Your task to perform on an android device: What's the weather going to be tomorrow? Image 0: 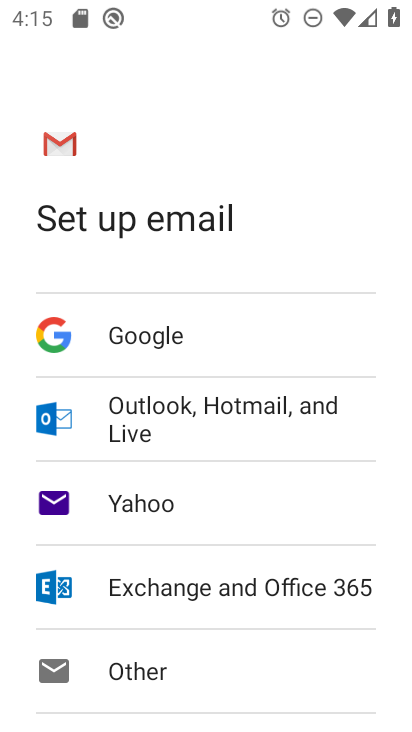
Step 0: press home button
Your task to perform on an android device: What's the weather going to be tomorrow? Image 1: 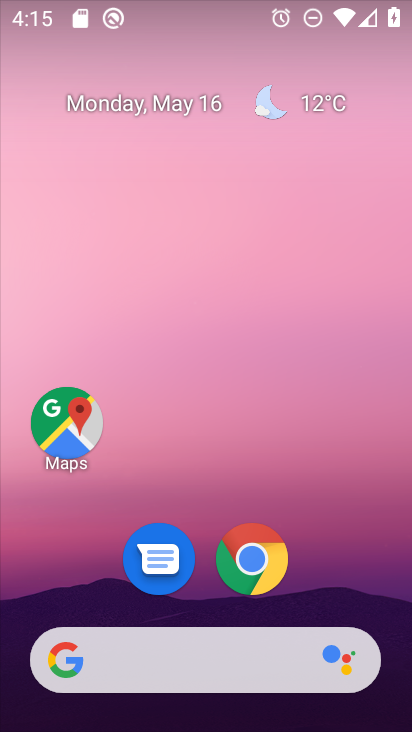
Step 1: click (355, 569)
Your task to perform on an android device: What's the weather going to be tomorrow? Image 2: 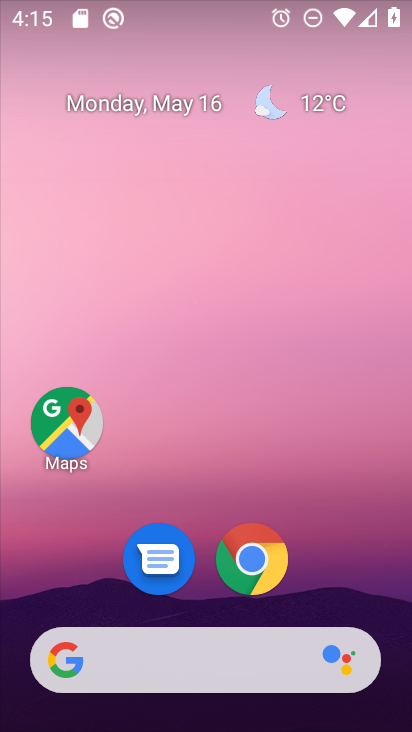
Step 2: click (154, 677)
Your task to perform on an android device: What's the weather going to be tomorrow? Image 3: 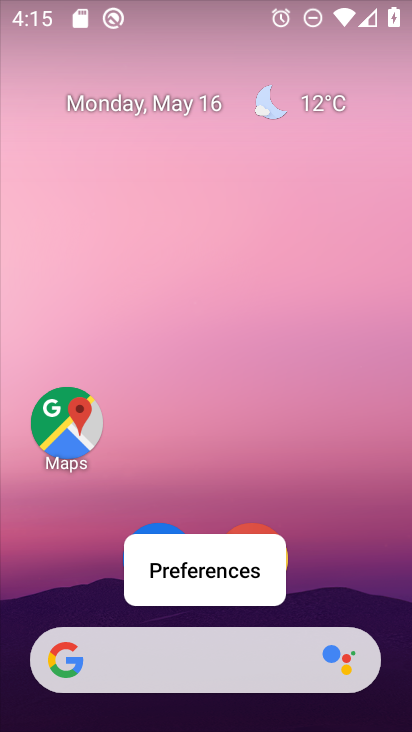
Step 3: click (154, 677)
Your task to perform on an android device: What's the weather going to be tomorrow? Image 4: 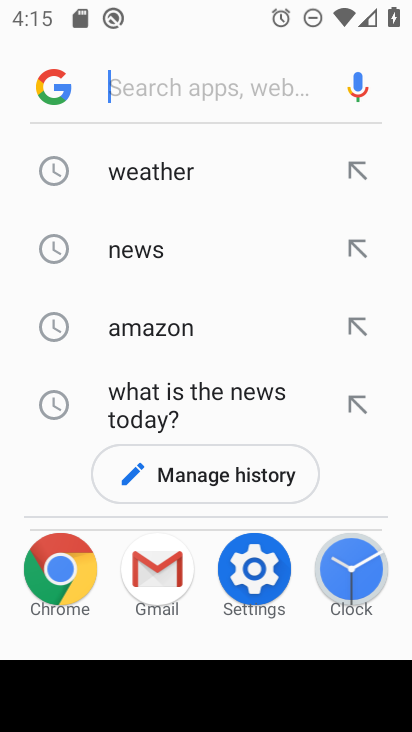
Step 4: click (187, 165)
Your task to perform on an android device: What's the weather going to be tomorrow? Image 5: 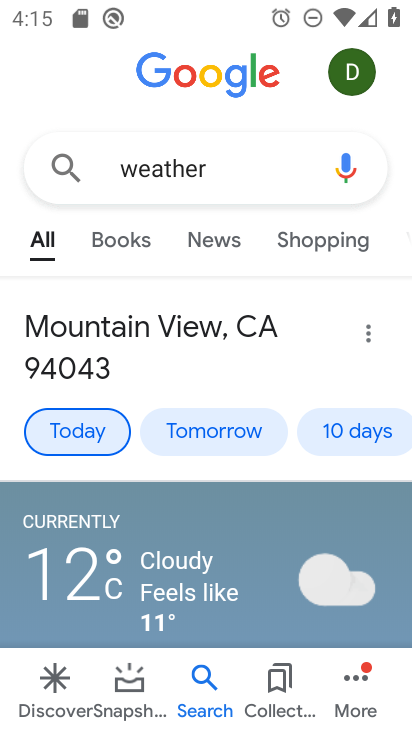
Step 5: task complete